Your task to perform on an android device: turn on wifi Image 0: 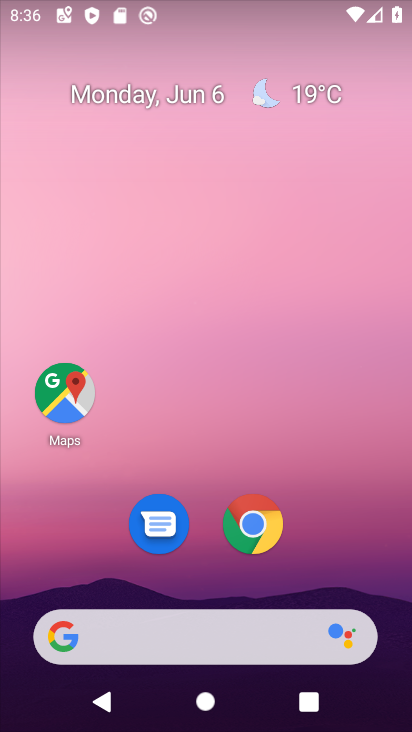
Step 0: drag from (314, 543) to (236, 10)
Your task to perform on an android device: turn on wifi Image 1: 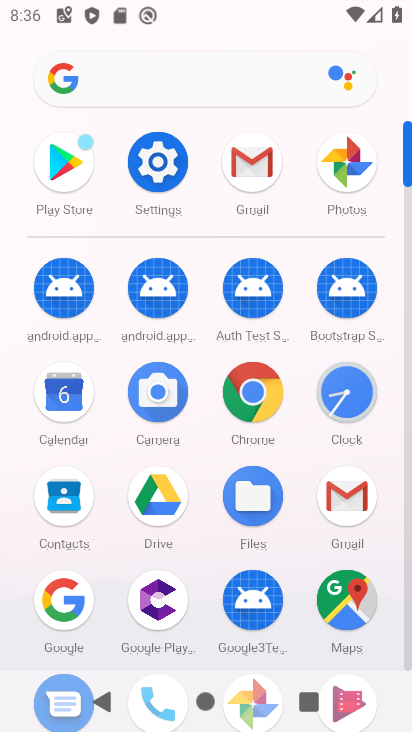
Step 1: click (151, 151)
Your task to perform on an android device: turn on wifi Image 2: 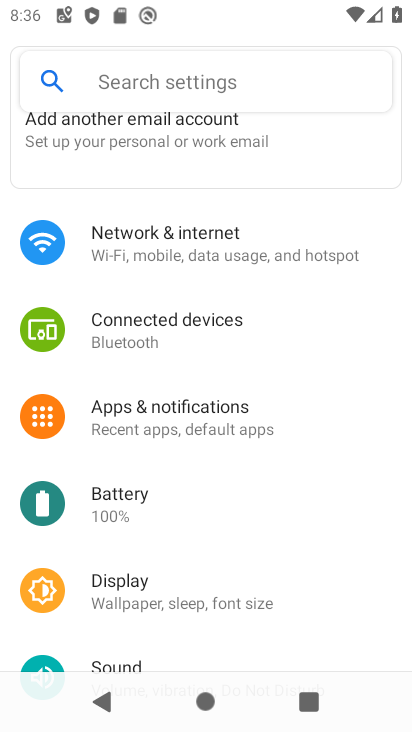
Step 2: click (232, 257)
Your task to perform on an android device: turn on wifi Image 3: 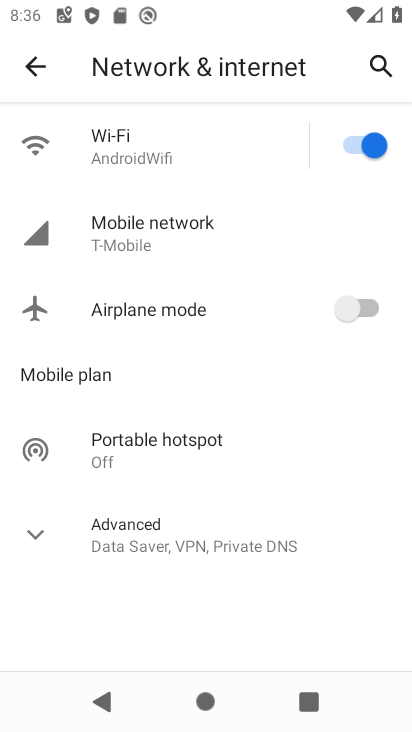
Step 3: task complete